Your task to perform on an android device: open the mobile data screen to see how much data has been used Image 0: 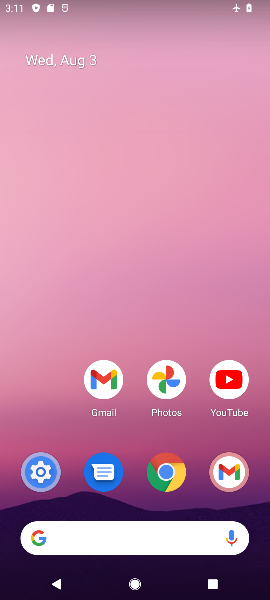
Step 0: click (44, 475)
Your task to perform on an android device: open the mobile data screen to see how much data has been used Image 1: 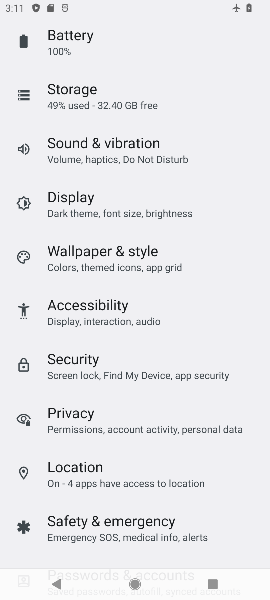
Step 1: drag from (158, 127) to (168, 531)
Your task to perform on an android device: open the mobile data screen to see how much data has been used Image 2: 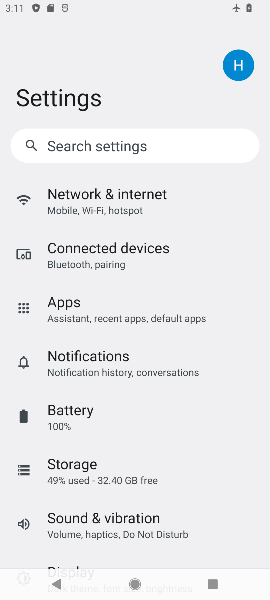
Step 2: click (88, 198)
Your task to perform on an android device: open the mobile data screen to see how much data has been used Image 3: 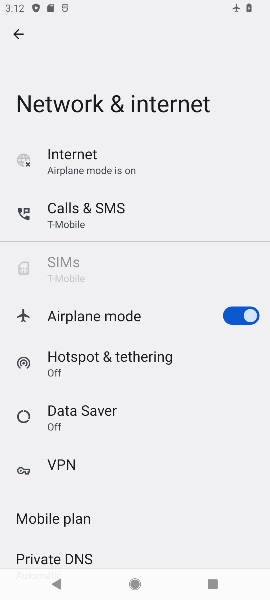
Step 3: drag from (128, 486) to (158, 450)
Your task to perform on an android device: open the mobile data screen to see how much data has been used Image 4: 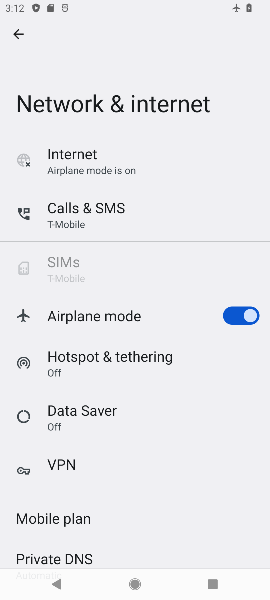
Step 4: click (237, 314)
Your task to perform on an android device: open the mobile data screen to see how much data has been used Image 5: 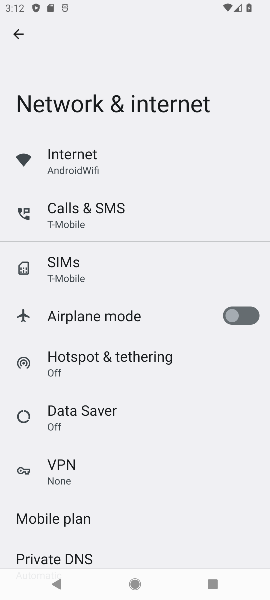
Step 5: click (77, 152)
Your task to perform on an android device: open the mobile data screen to see how much data has been used Image 6: 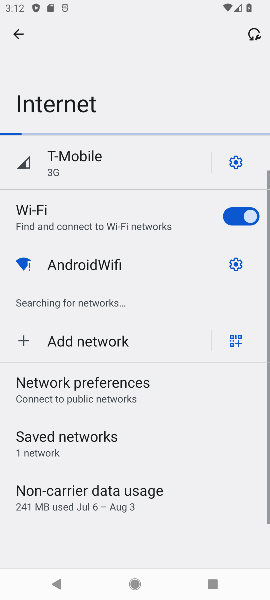
Step 6: click (133, 502)
Your task to perform on an android device: open the mobile data screen to see how much data has been used Image 7: 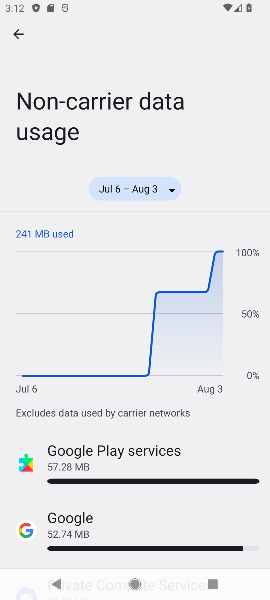
Step 7: task complete